Your task to perform on an android device: turn on javascript in the chrome app Image 0: 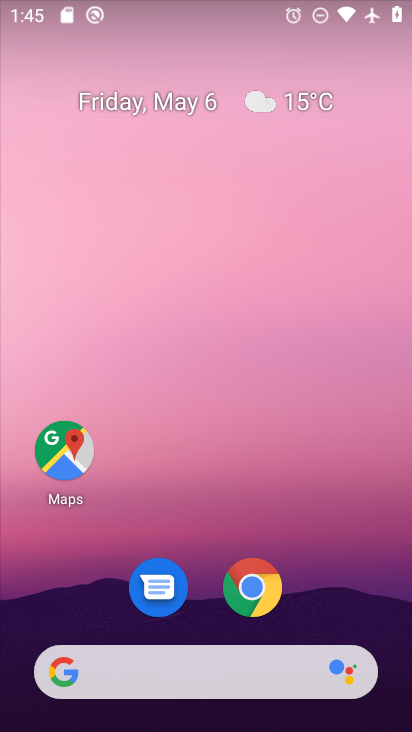
Step 0: click (256, 588)
Your task to perform on an android device: turn on javascript in the chrome app Image 1: 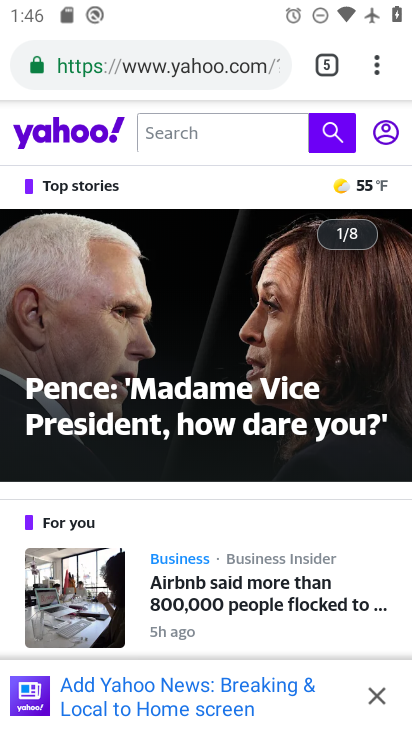
Step 1: click (371, 68)
Your task to perform on an android device: turn on javascript in the chrome app Image 2: 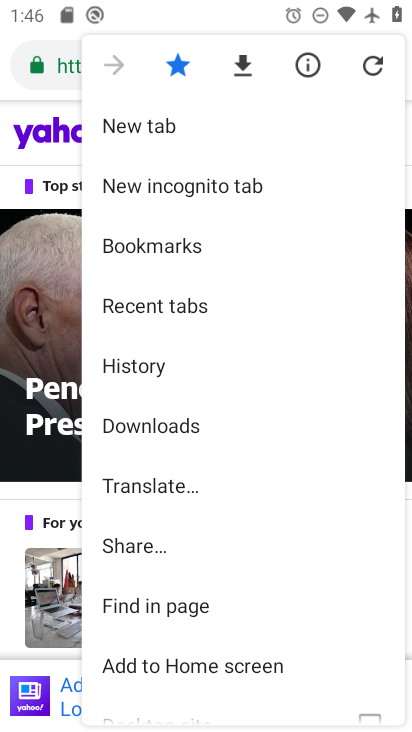
Step 2: drag from (256, 628) to (247, 154)
Your task to perform on an android device: turn on javascript in the chrome app Image 3: 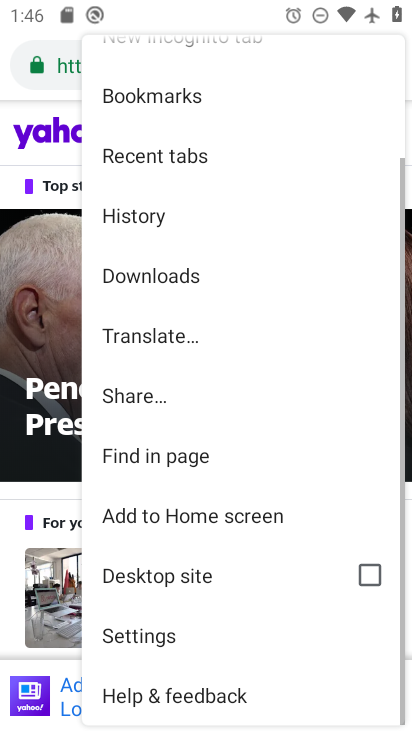
Step 3: click (175, 640)
Your task to perform on an android device: turn on javascript in the chrome app Image 4: 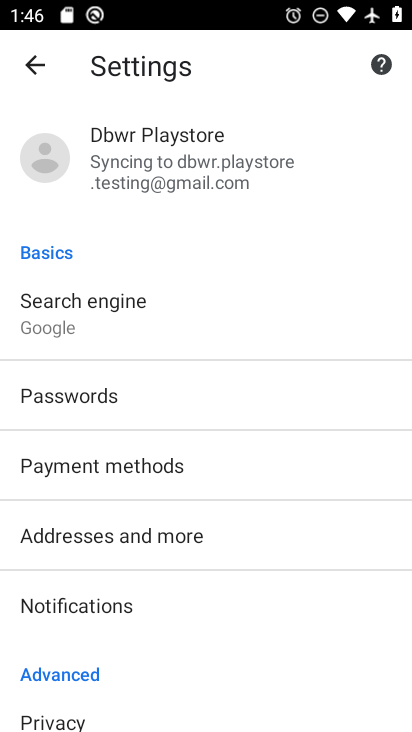
Step 4: drag from (232, 623) to (196, 251)
Your task to perform on an android device: turn on javascript in the chrome app Image 5: 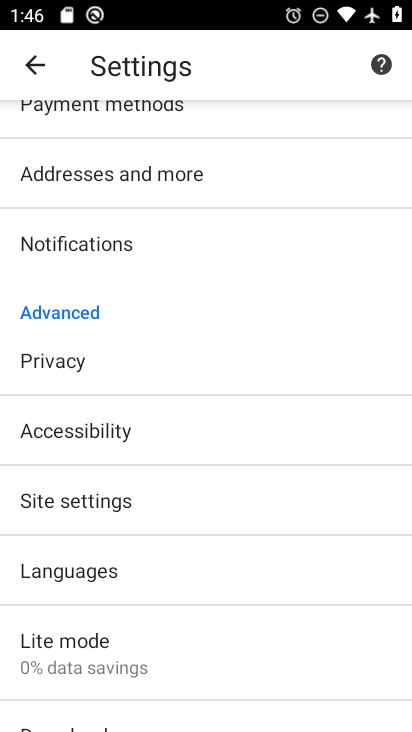
Step 5: click (124, 508)
Your task to perform on an android device: turn on javascript in the chrome app Image 6: 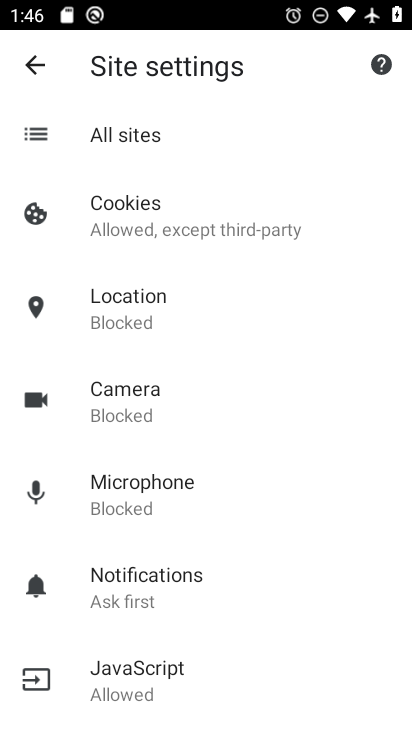
Step 6: click (155, 663)
Your task to perform on an android device: turn on javascript in the chrome app Image 7: 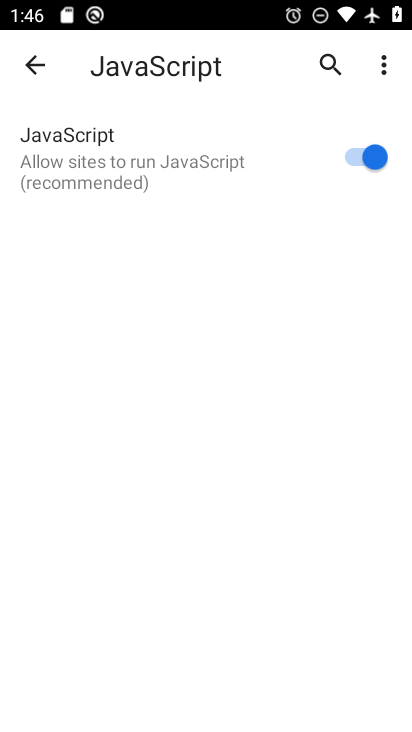
Step 7: task complete